Your task to perform on an android device: What's the weather today? Image 0: 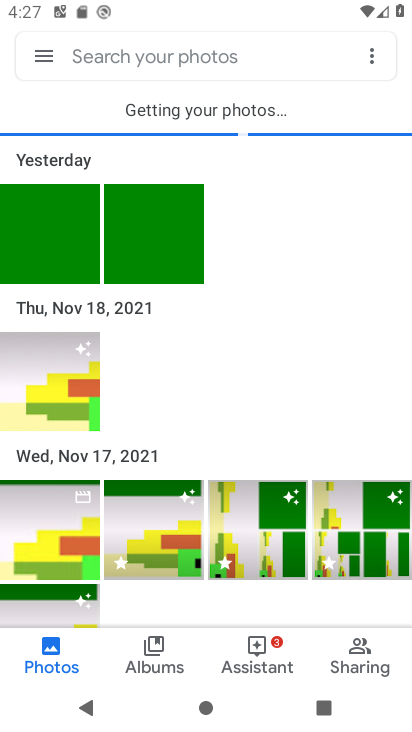
Step 0: press home button
Your task to perform on an android device: What's the weather today? Image 1: 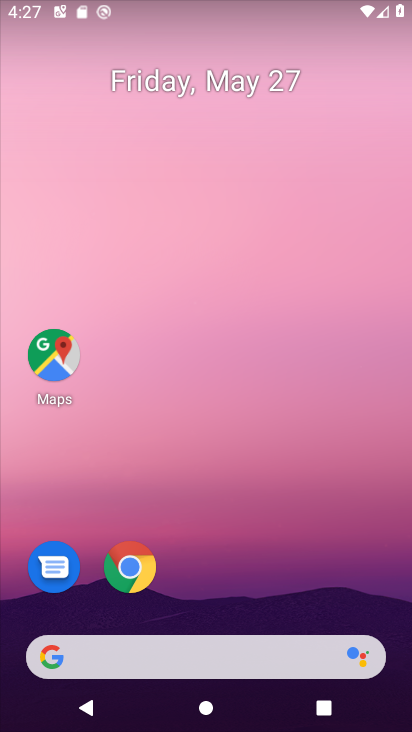
Step 1: click (153, 659)
Your task to perform on an android device: What's the weather today? Image 2: 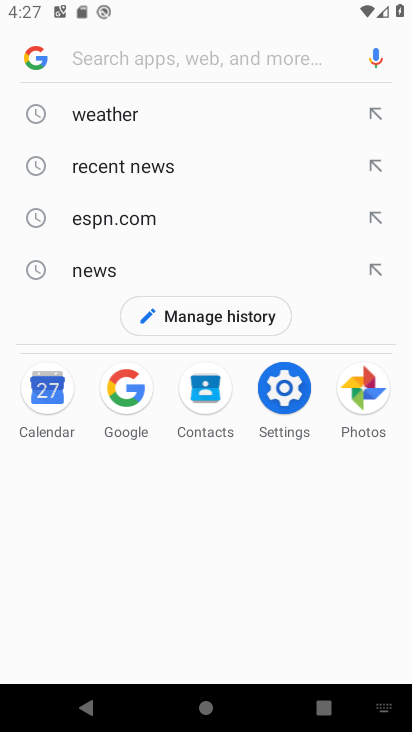
Step 2: type "what's the weather today"
Your task to perform on an android device: What's the weather today? Image 3: 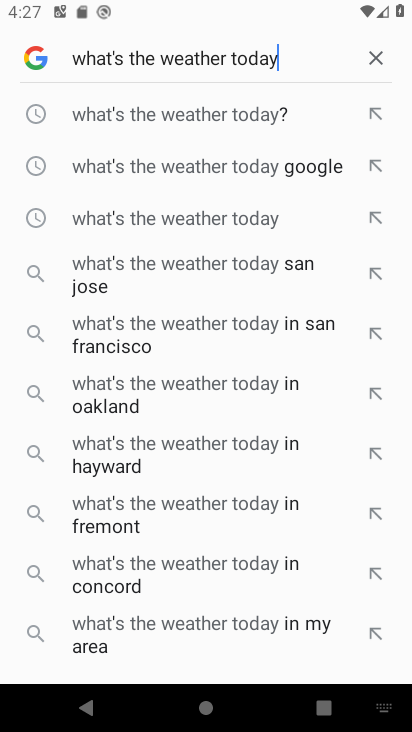
Step 3: click (227, 120)
Your task to perform on an android device: What's the weather today? Image 4: 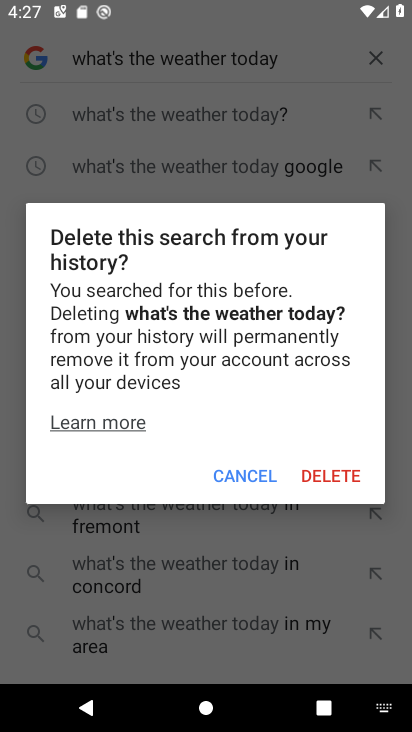
Step 4: click (256, 473)
Your task to perform on an android device: What's the weather today? Image 5: 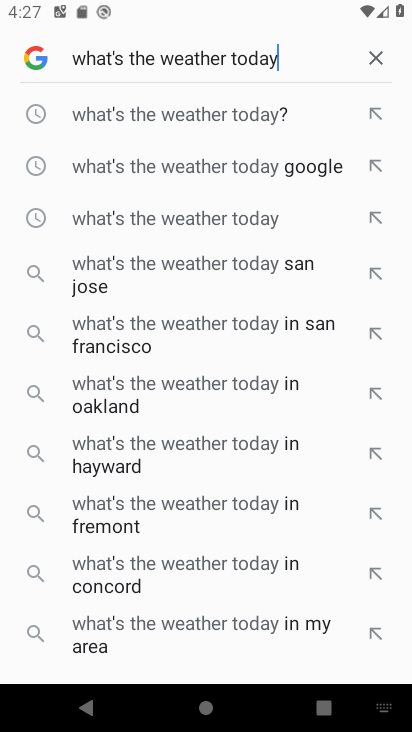
Step 5: click (262, 127)
Your task to perform on an android device: What's the weather today? Image 6: 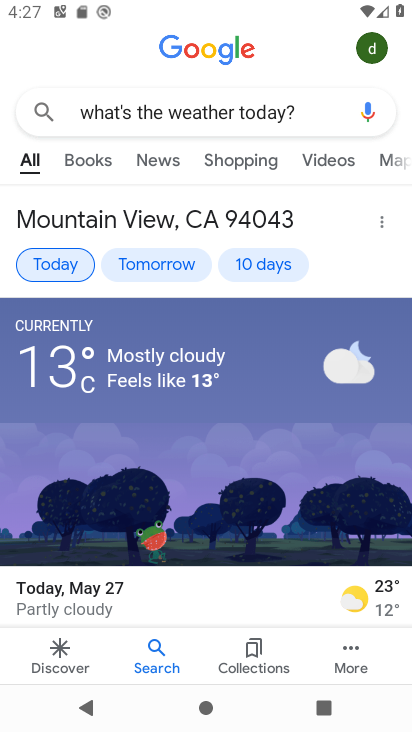
Step 6: task complete